Your task to perform on an android device: turn on translation in the chrome app Image 0: 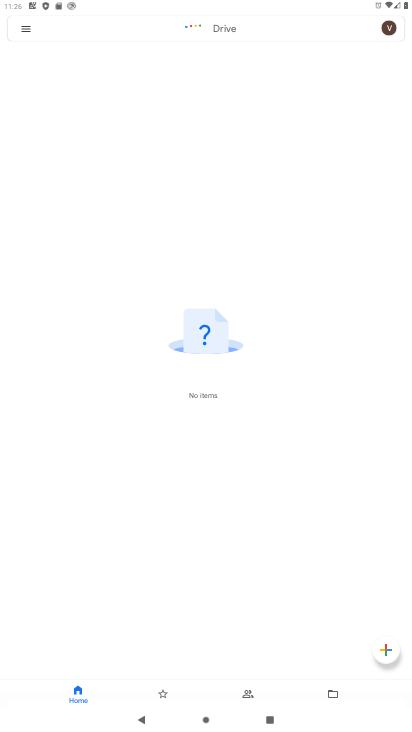
Step 0: press home button
Your task to perform on an android device: turn on translation in the chrome app Image 1: 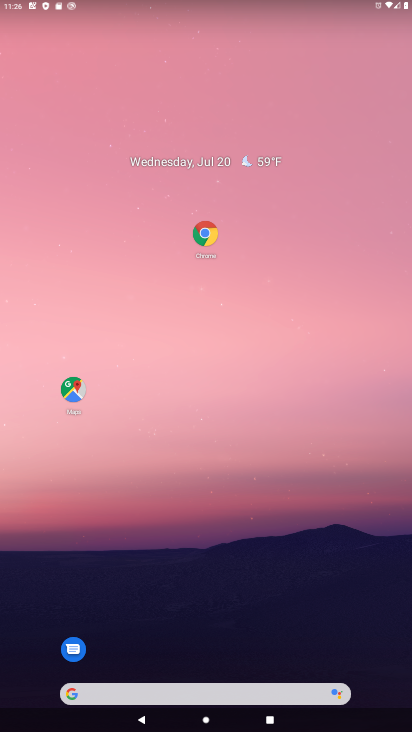
Step 1: click (206, 235)
Your task to perform on an android device: turn on translation in the chrome app Image 2: 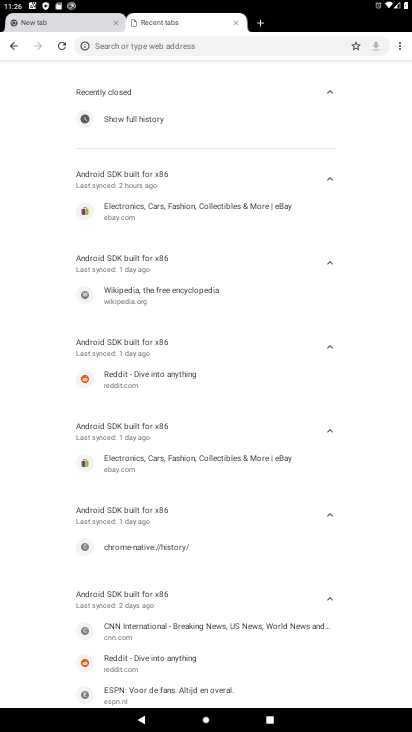
Step 2: click (398, 47)
Your task to perform on an android device: turn on translation in the chrome app Image 3: 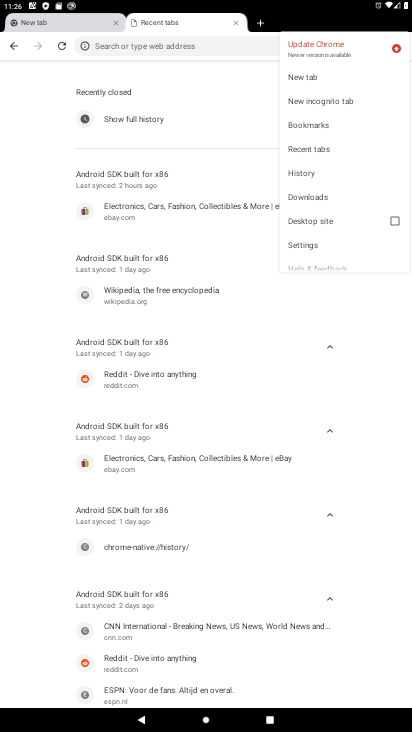
Step 3: click (305, 246)
Your task to perform on an android device: turn on translation in the chrome app Image 4: 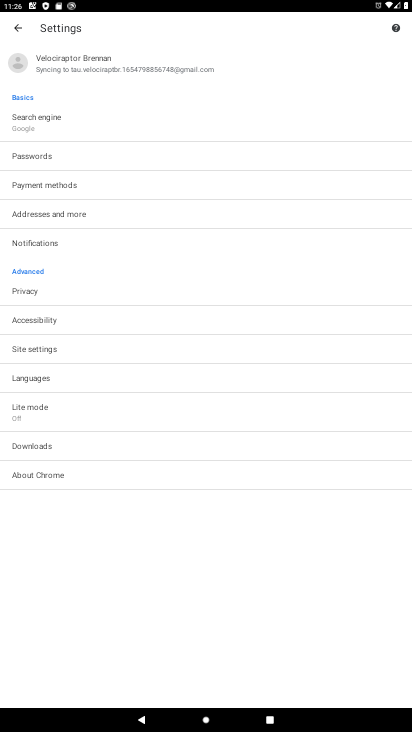
Step 4: click (20, 385)
Your task to perform on an android device: turn on translation in the chrome app Image 5: 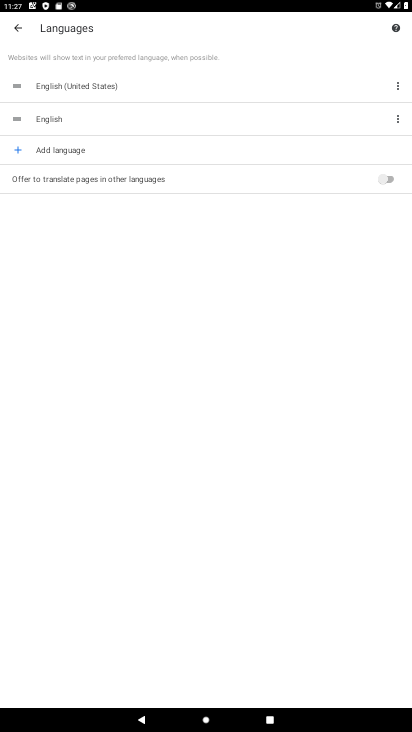
Step 5: click (386, 180)
Your task to perform on an android device: turn on translation in the chrome app Image 6: 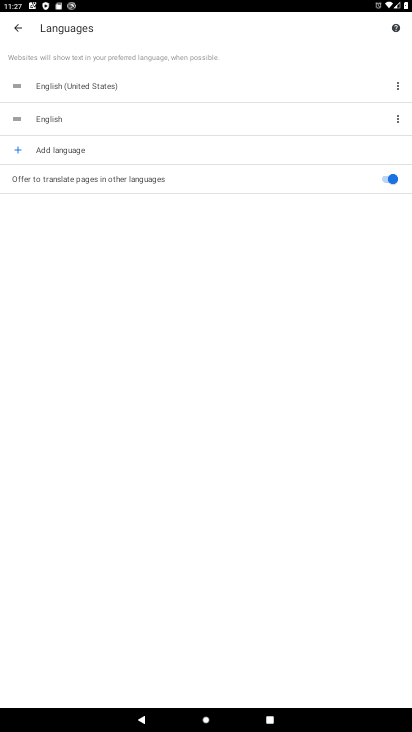
Step 6: task complete